Your task to perform on an android device: Go to battery settings Image 0: 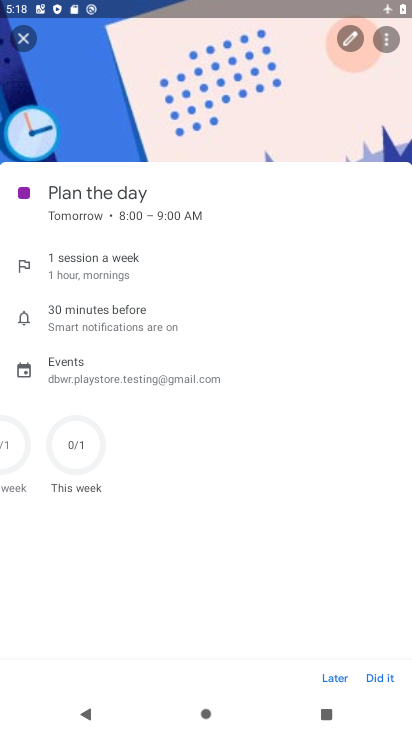
Step 0: press back button
Your task to perform on an android device: Go to battery settings Image 1: 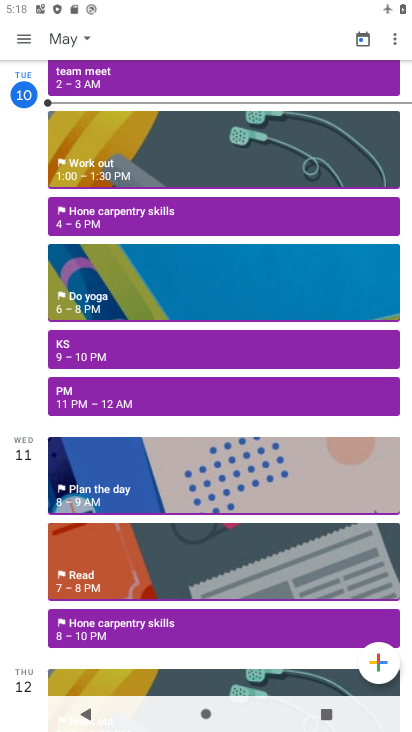
Step 1: press back button
Your task to perform on an android device: Go to battery settings Image 2: 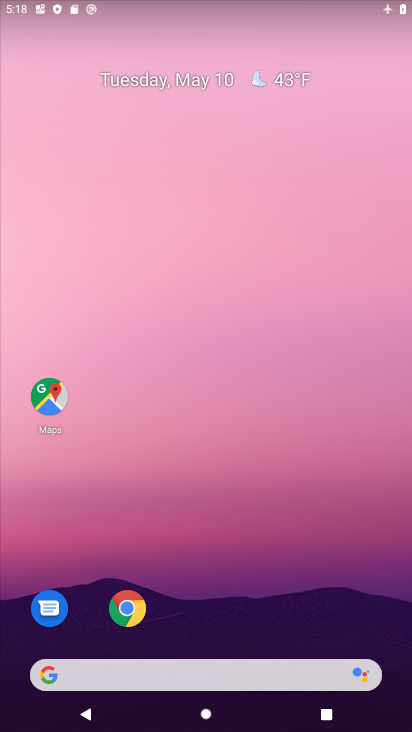
Step 2: drag from (227, 579) to (271, 95)
Your task to perform on an android device: Go to battery settings Image 3: 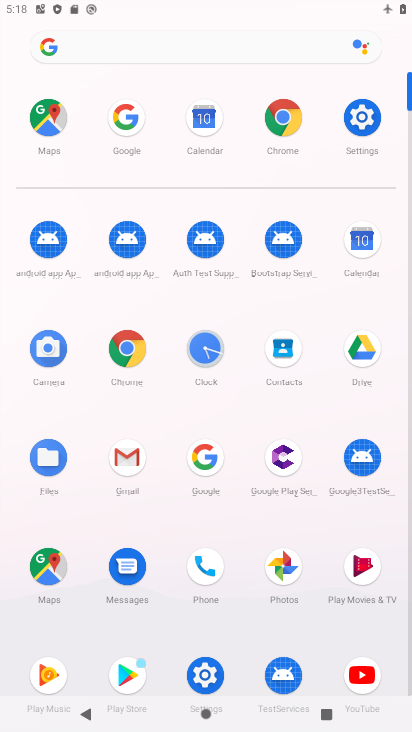
Step 3: click (356, 126)
Your task to perform on an android device: Go to battery settings Image 4: 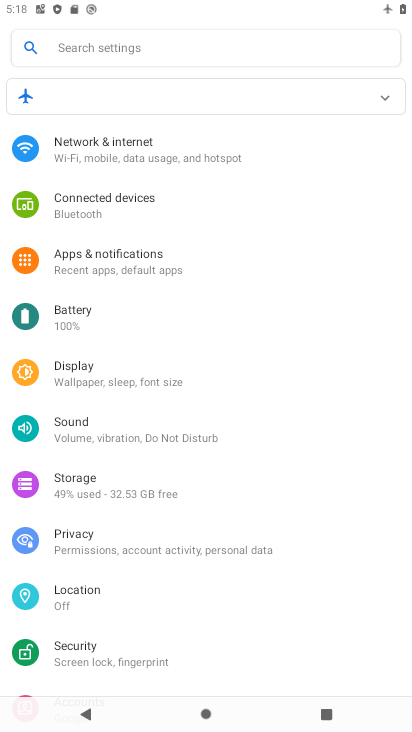
Step 4: click (100, 322)
Your task to perform on an android device: Go to battery settings Image 5: 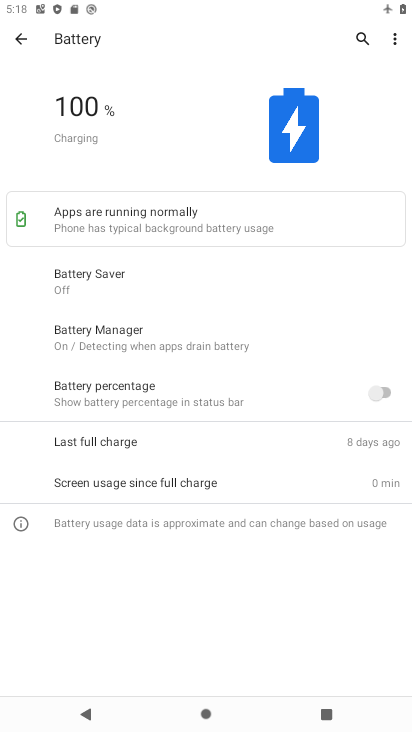
Step 5: task complete